Your task to perform on an android device: check out phone information Image 0: 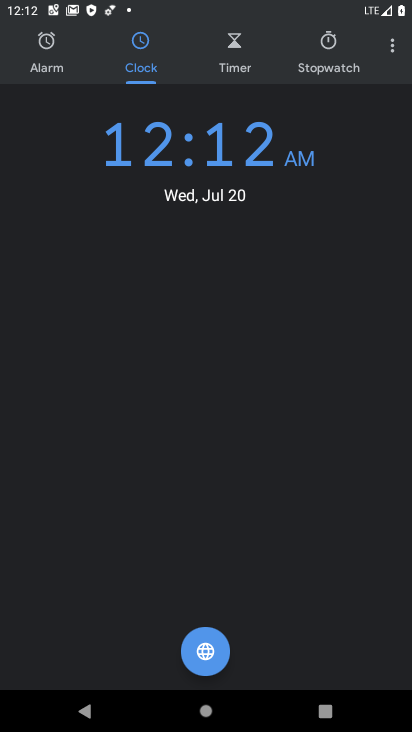
Step 0: press home button
Your task to perform on an android device: check out phone information Image 1: 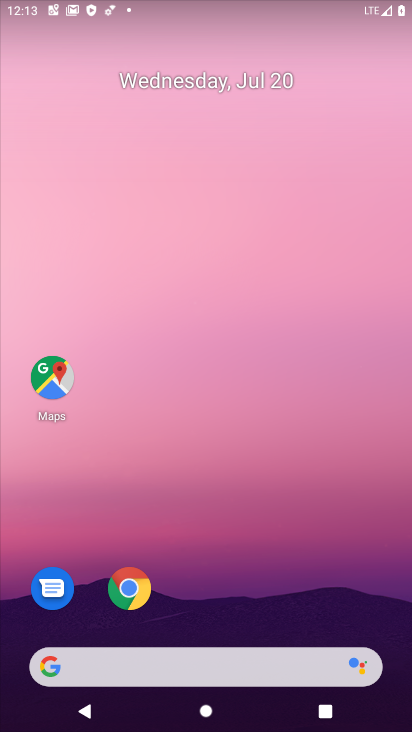
Step 1: drag from (400, 637) to (310, 63)
Your task to perform on an android device: check out phone information Image 2: 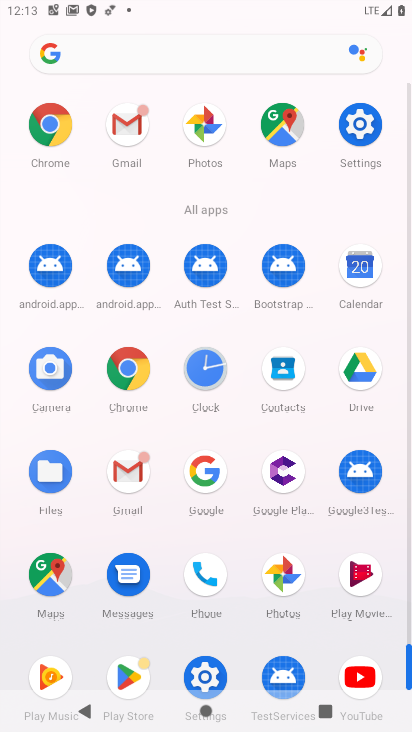
Step 2: click (194, 667)
Your task to perform on an android device: check out phone information Image 3: 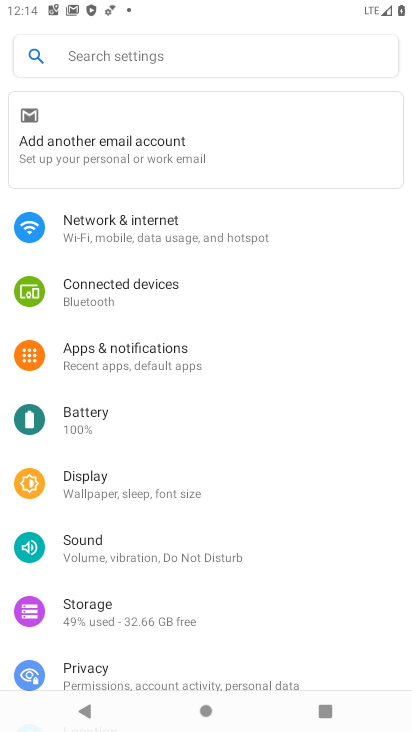
Step 3: drag from (328, 611) to (296, 152)
Your task to perform on an android device: check out phone information Image 4: 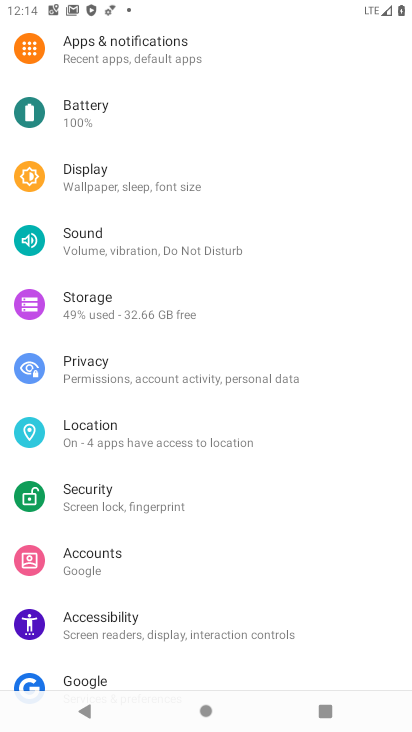
Step 4: drag from (345, 633) to (301, 256)
Your task to perform on an android device: check out phone information Image 5: 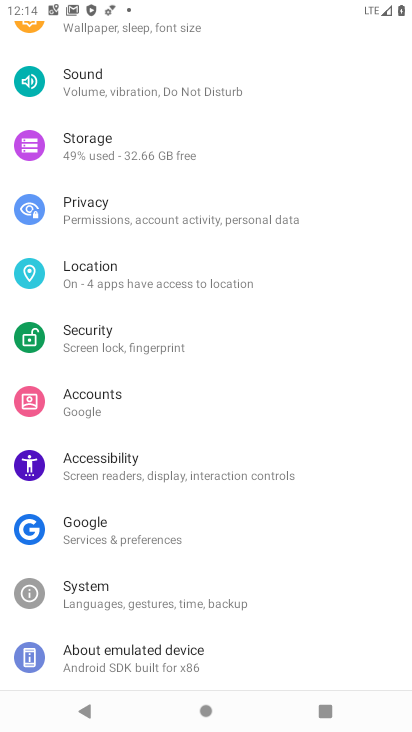
Step 5: click (126, 654)
Your task to perform on an android device: check out phone information Image 6: 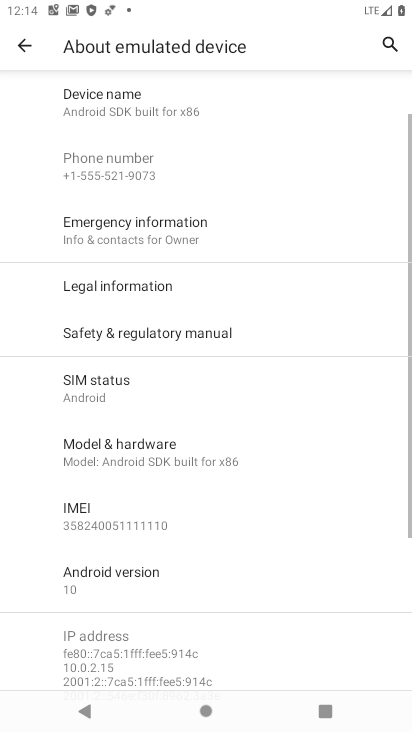
Step 6: task complete